Your task to perform on an android device: What's on my calendar tomorrow? Image 0: 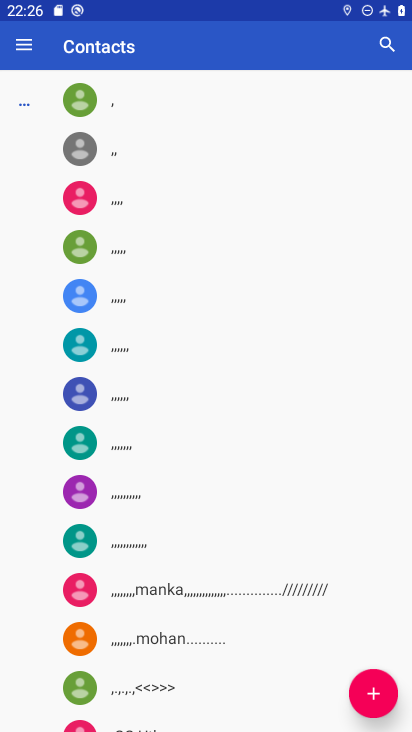
Step 0: press home button
Your task to perform on an android device: What's on my calendar tomorrow? Image 1: 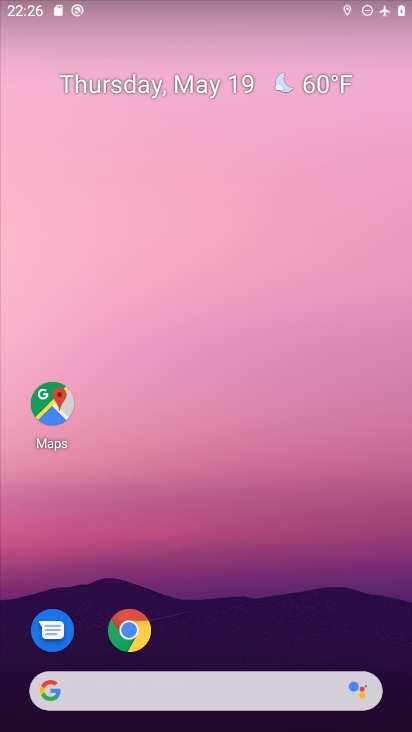
Step 1: drag from (258, 575) to (210, 163)
Your task to perform on an android device: What's on my calendar tomorrow? Image 2: 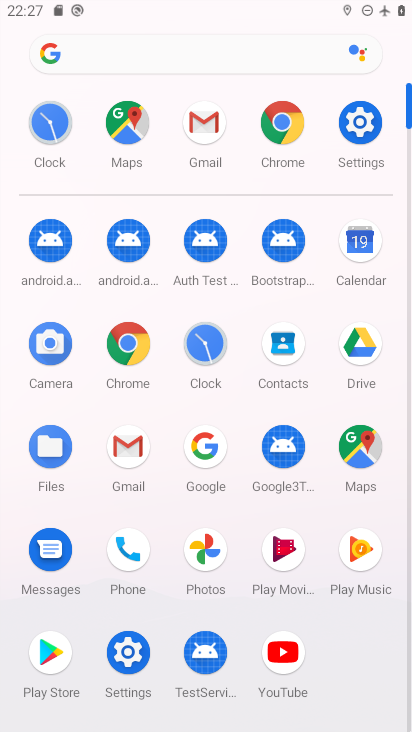
Step 2: click (361, 240)
Your task to perform on an android device: What's on my calendar tomorrow? Image 3: 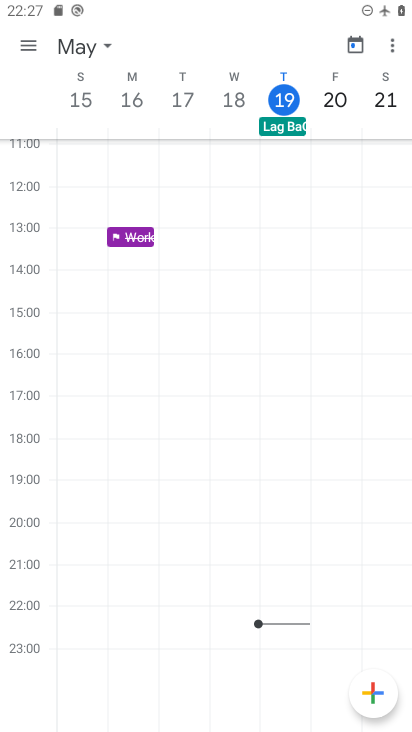
Step 3: drag from (261, 323) to (255, 142)
Your task to perform on an android device: What's on my calendar tomorrow? Image 4: 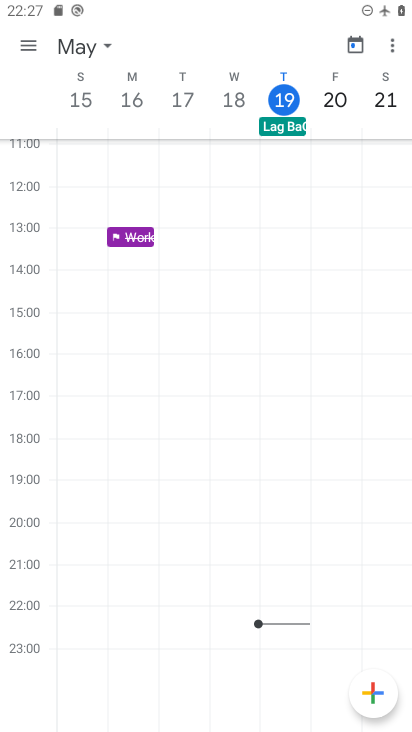
Step 4: click (334, 93)
Your task to perform on an android device: What's on my calendar tomorrow? Image 5: 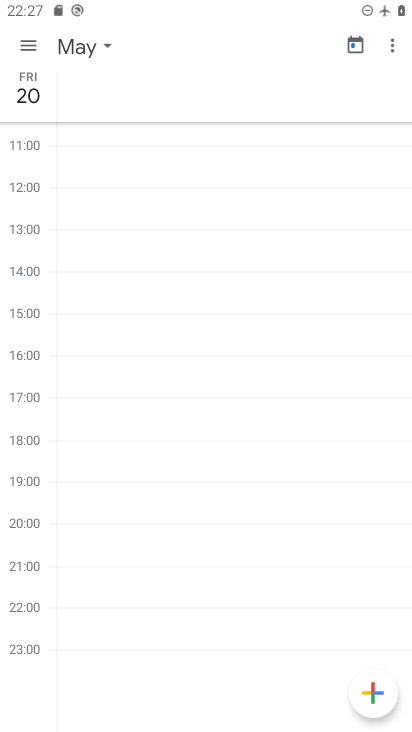
Step 5: click (334, 93)
Your task to perform on an android device: What's on my calendar tomorrow? Image 6: 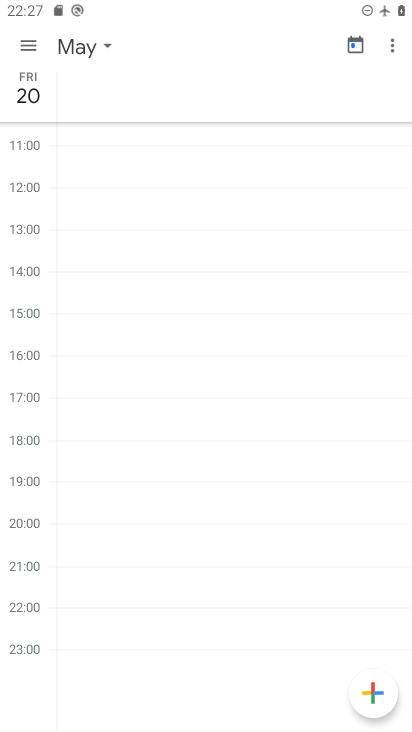
Step 6: task complete